Your task to perform on an android device: turn off location Image 0: 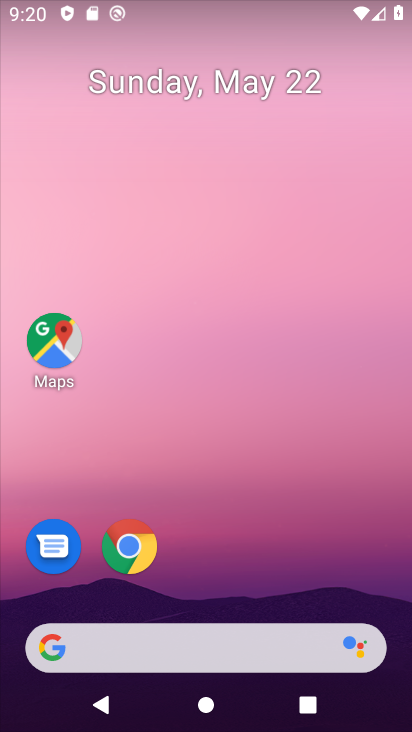
Step 0: drag from (255, 609) to (193, 106)
Your task to perform on an android device: turn off location Image 1: 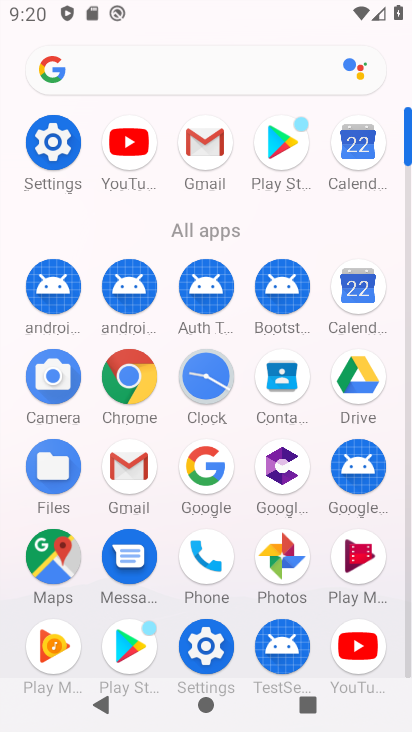
Step 1: click (56, 161)
Your task to perform on an android device: turn off location Image 2: 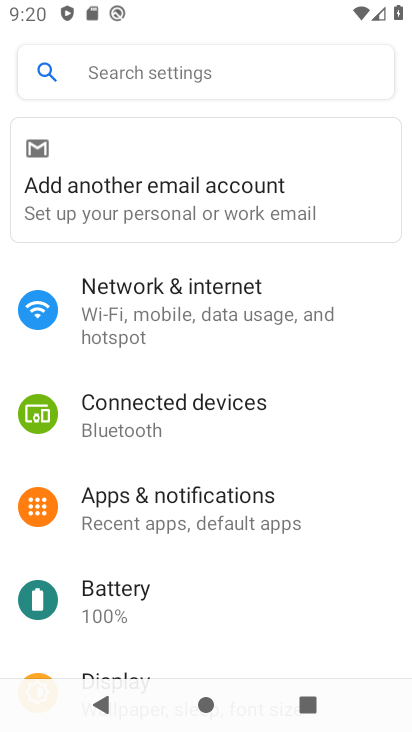
Step 2: drag from (266, 633) to (230, 194)
Your task to perform on an android device: turn off location Image 3: 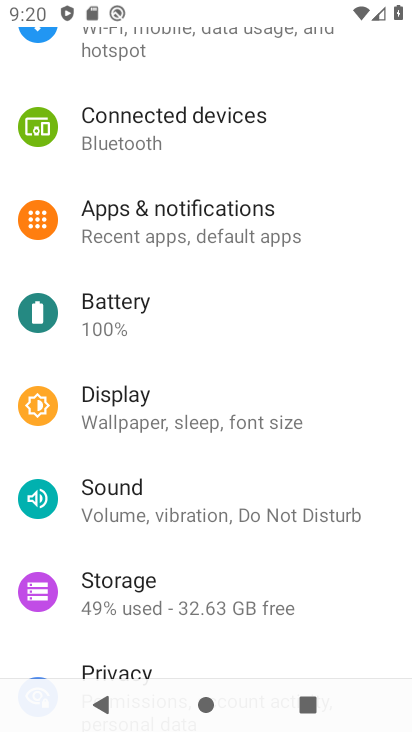
Step 3: drag from (212, 650) to (169, 234)
Your task to perform on an android device: turn off location Image 4: 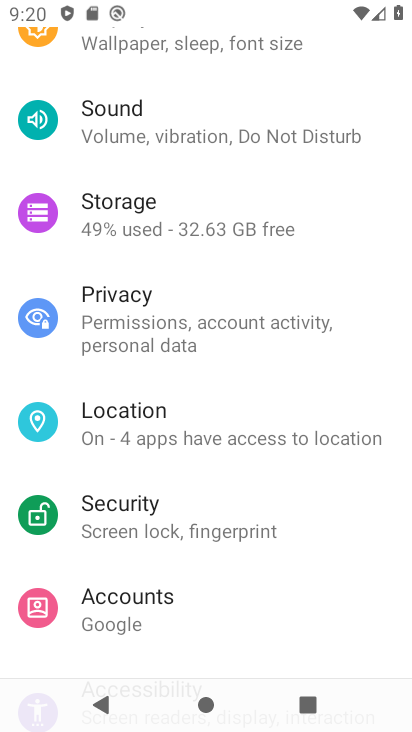
Step 4: click (223, 430)
Your task to perform on an android device: turn off location Image 5: 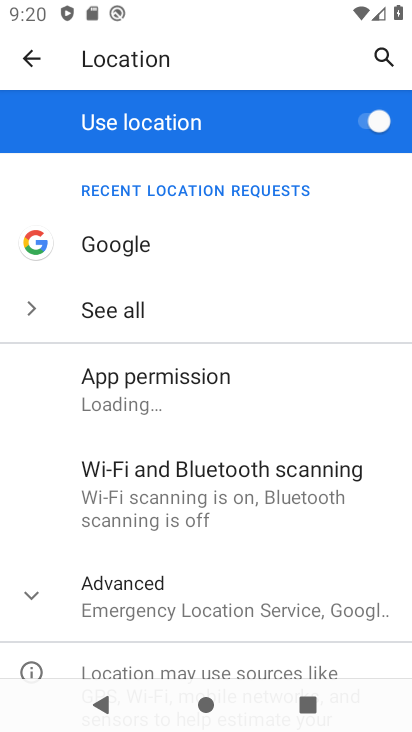
Step 5: click (359, 123)
Your task to perform on an android device: turn off location Image 6: 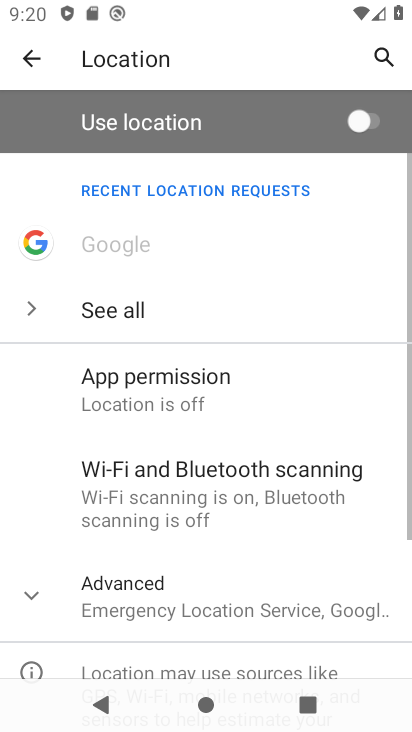
Step 6: task complete